Your task to perform on an android device: turn on wifi Image 0: 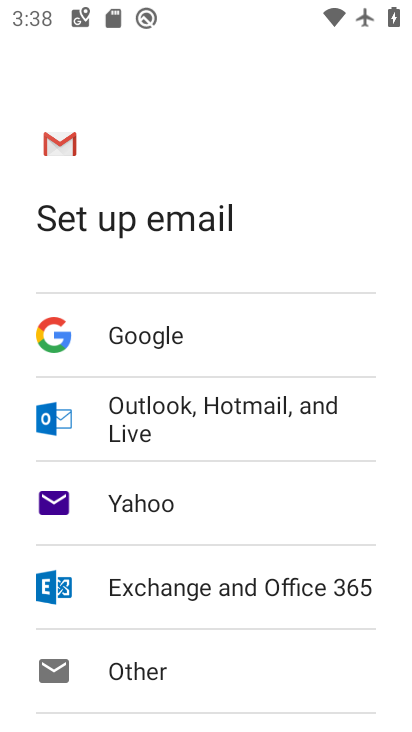
Step 0: press home button
Your task to perform on an android device: turn on wifi Image 1: 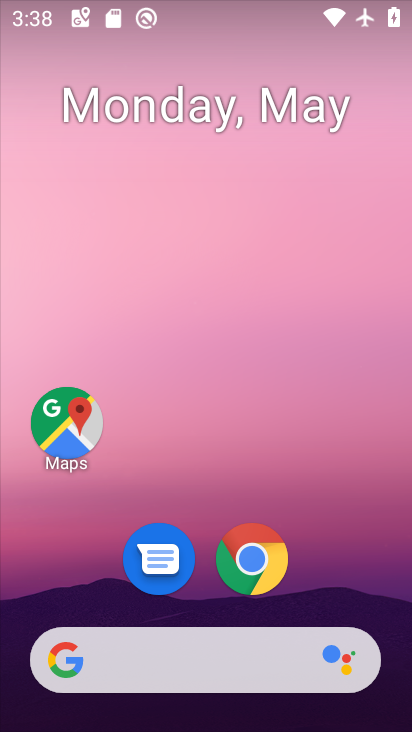
Step 1: drag from (274, 555) to (347, 211)
Your task to perform on an android device: turn on wifi Image 2: 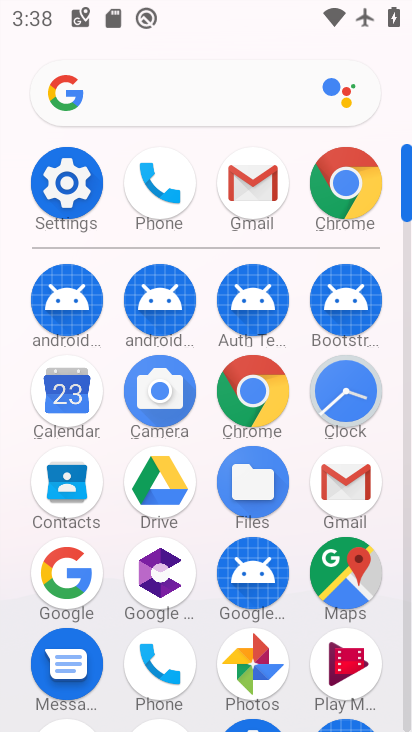
Step 2: click (73, 183)
Your task to perform on an android device: turn on wifi Image 3: 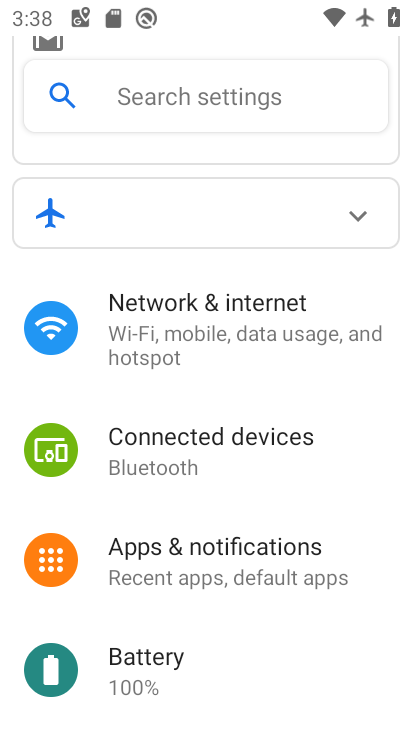
Step 3: click (190, 337)
Your task to perform on an android device: turn on wifi Image 4: 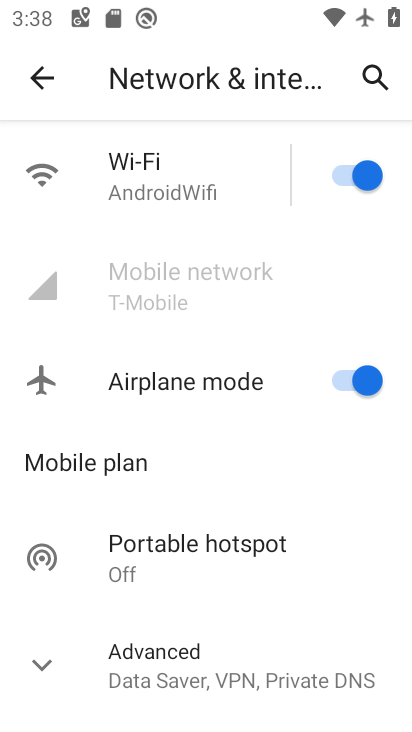
Step 4: task complete